Your task to perform on an android device: Go to settings Image 0: 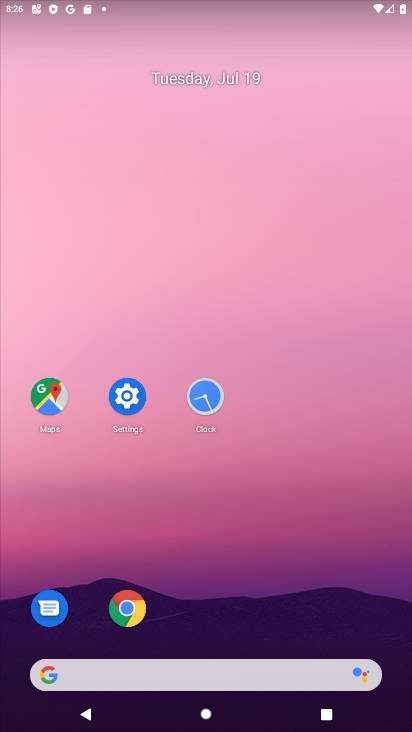
Step 0: click (121, 405)
Your task to perform on an android device: Go to settings Image 1: 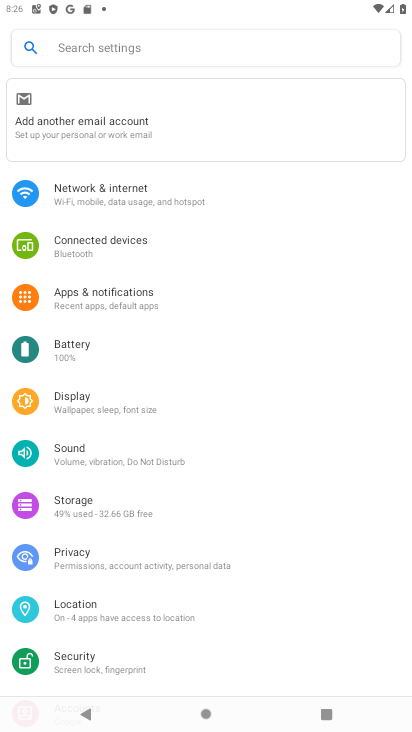
Step 1: task complete